Your task to perform on an android device: Search for Italian restaurants on Maps Image 0: 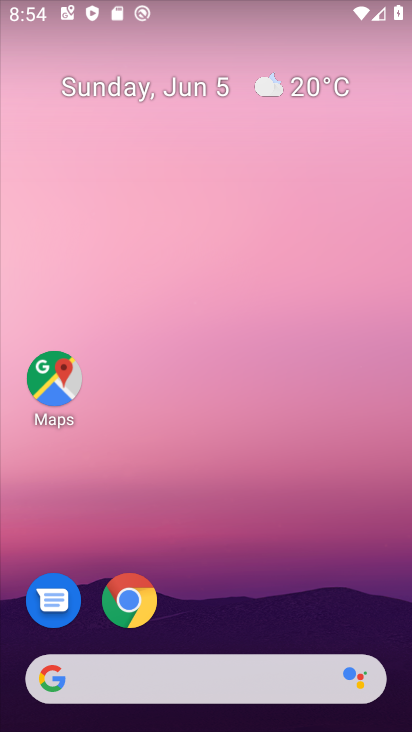
Step 0: click (45, 372)
Your task to perform on an android device: Search for Italian restaurants on Maps Image 1: 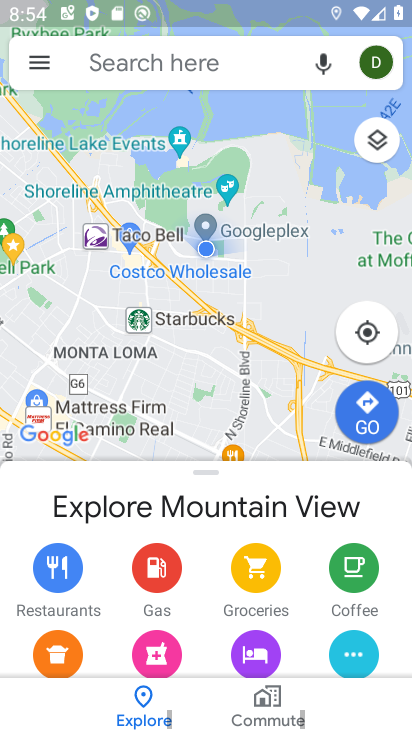
Step 1: click (197, 68)
Your task to perform on an android device: Search for Italian restaurants on Maps Image 2: 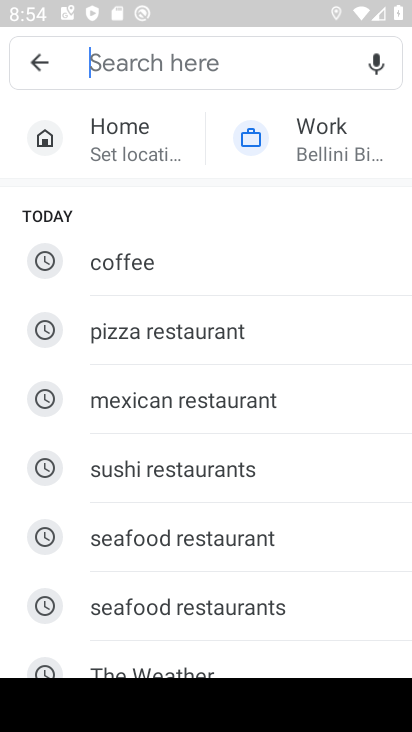
Step 2: type "italian restaurants"
Your task to perform on an android device: Search for Italian restaurants on Maps Image 3: 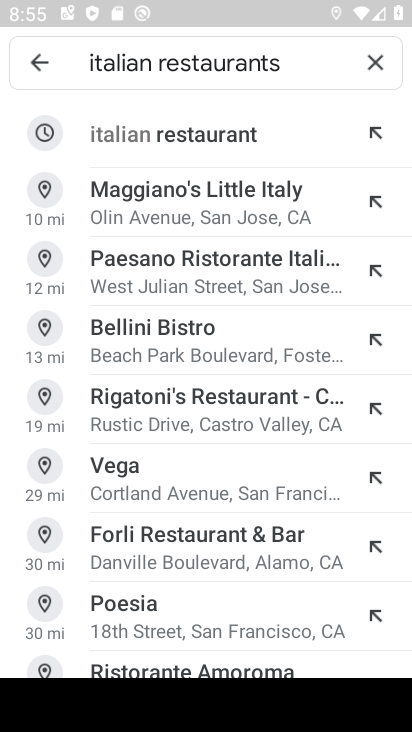
Step 3: click (222, 135)
Your task to perform on an android device: Search for Italian restaurants on Maps Image 4: 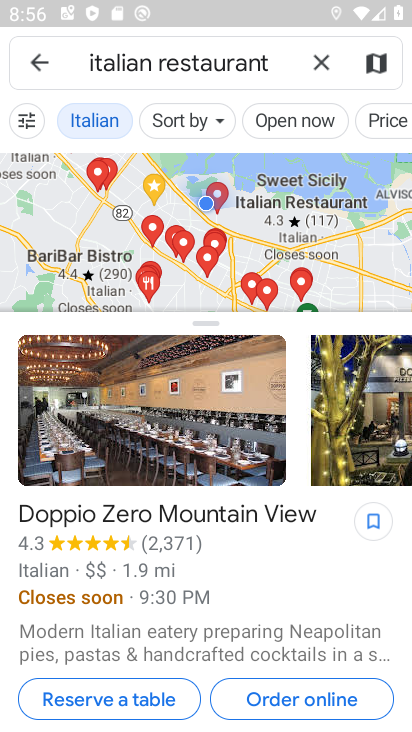
Step 4: task complete